Your task to perform on an android device: Play the latest video from the New York Times Image 0: 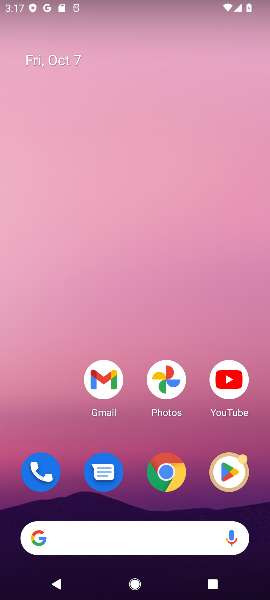
Step 0: click (232, 381)
Your task to perform on an android device: Play the latest video from the New York Times Image 1: 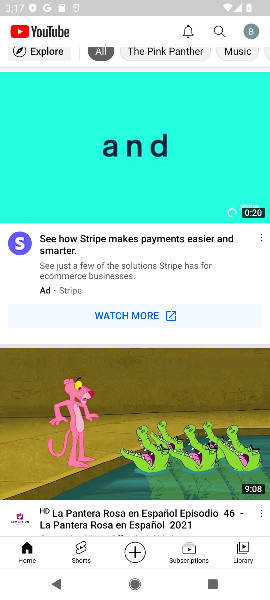
Step 1: click (217, 29)
Your task to perform on an android device: Play the latest video from the New York Times Image 2: 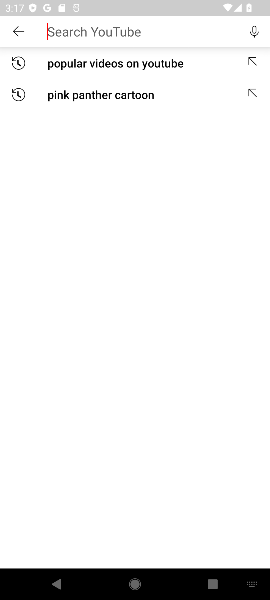
Step 2: type "Latest video from the New York Times"
Your task to perform on an android device: Play the latest video from the New York Times Image 3: 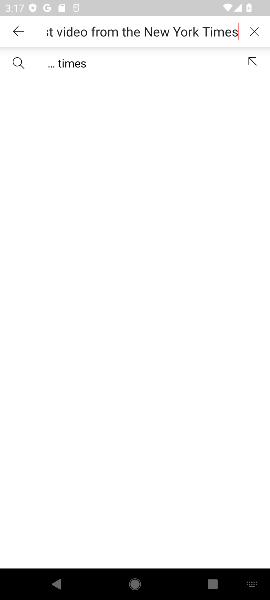
Step 3: click (76, 66)
Your task to perform on an android device: Play the latest video from the New York Times Image 4: 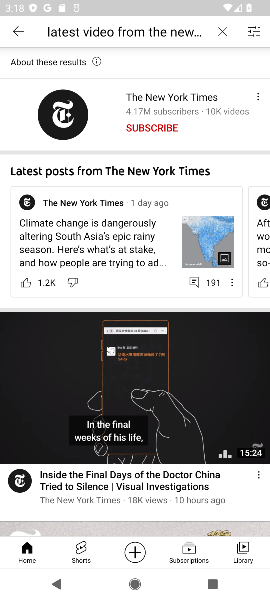
Step 4: click (140, 423)
Your task to perform on an android device: Play the latest video from the New York Times Image 5: 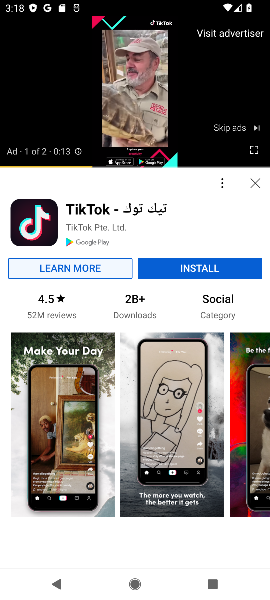
Step 5: click (243, 124)
Your task to perform on an android device: Play the latest video from the New York Times Image 6: 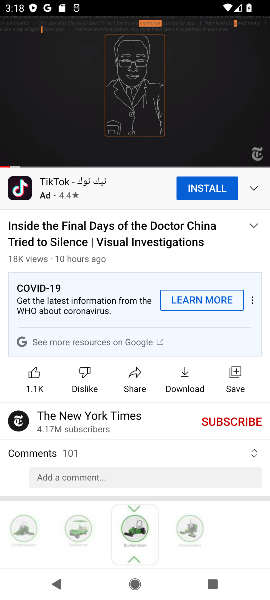
Step 6: click (165, 106)
Your task to perform on an android device: Play the latest video from the New York Times Image 7: 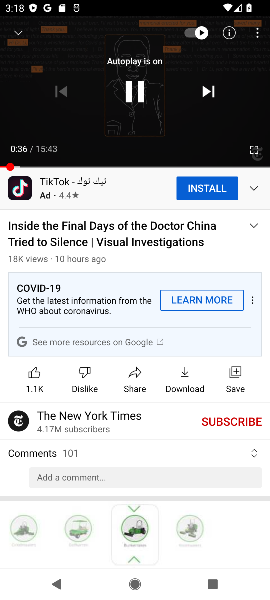
Step 7: click (128, 87)
Your task to perform on an android device: Play the latest video from the New York Times Image 8: 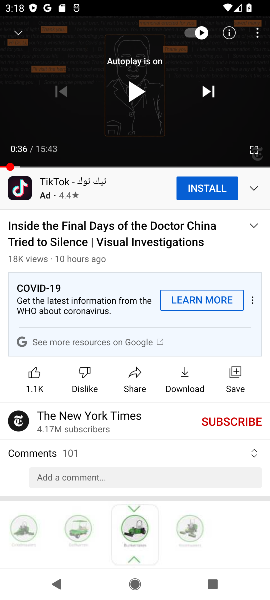
Step 8: task complete